Your task to perform on an android device: Is it going to rain today? Image 0: 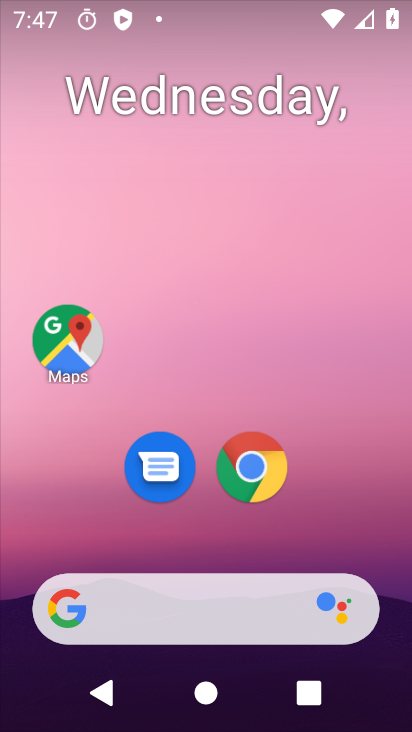
Step 0: drag from (376, 546) to (301, 276)
Your task to perform on an android device: Is it going to rain today? Image 1: 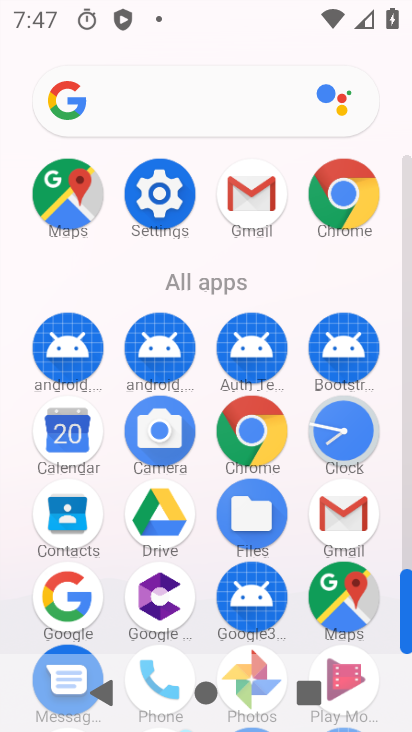
Step 1: press home button
Your task to perform on an android device: Is it going to rain today? Image 2: 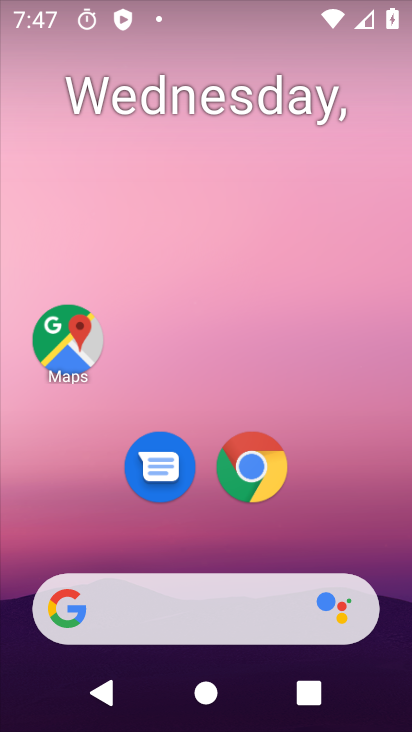
Step 2: drag from (0, 244) to (401, 222)
Your task to perform on an android device: Is it going to rain today? Image 3: 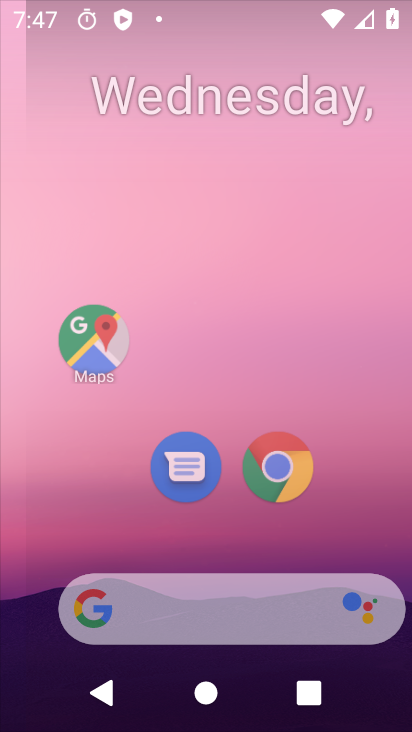
Step 3: drag from (7, 214) to (383, 213)
Your task to perform on an android device: Is it going to rain today? Image 4: 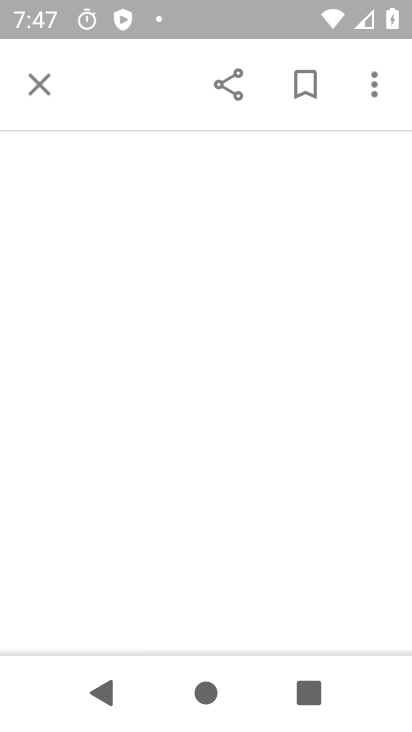
Step 4: drag from (301, 135) to (279, 455)
Your task to perform on an android device: Is it going to rain today? Image 5: 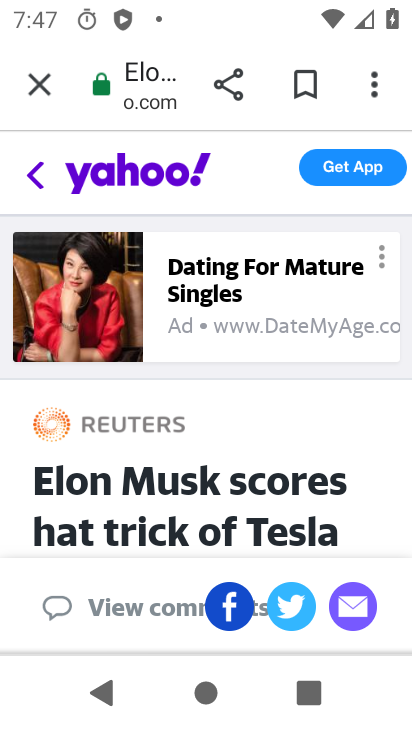
Step 5: press back button
Your task to perform on an android device: Is it going to rain today? Image 6: 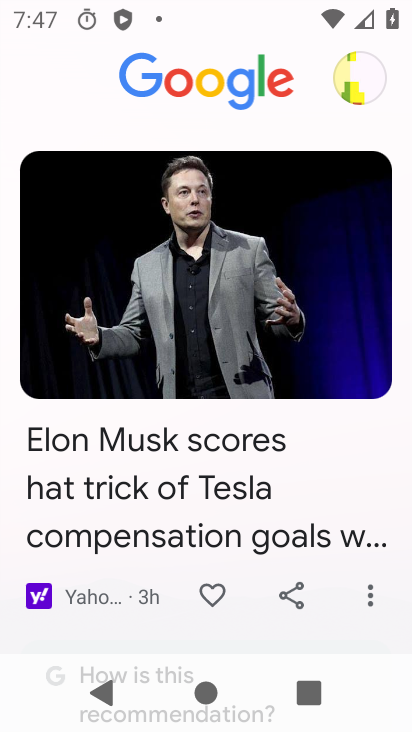
Step 6: click (286, 436)
Your task to perform on an android device: Is it going to rain today? Image 7: 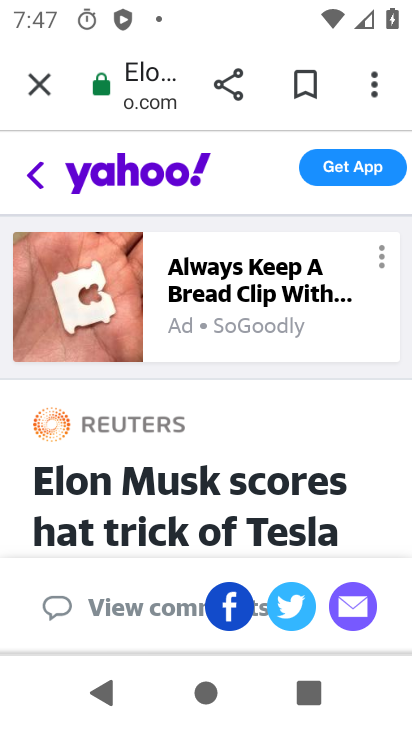
Step 7: task complete